Your task to perform on an android device: Add "macbook" to the cart on newegg.com Image 0: 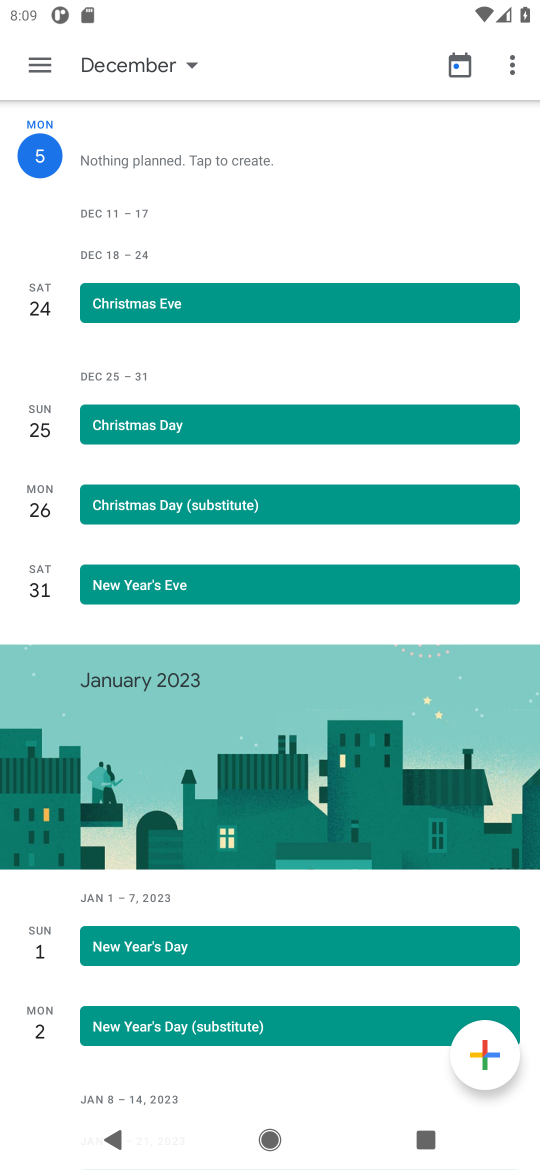
Step 0: press home button
Your task to perform on an android device: Add "macbook" to the cart on newegg.com Image 1: 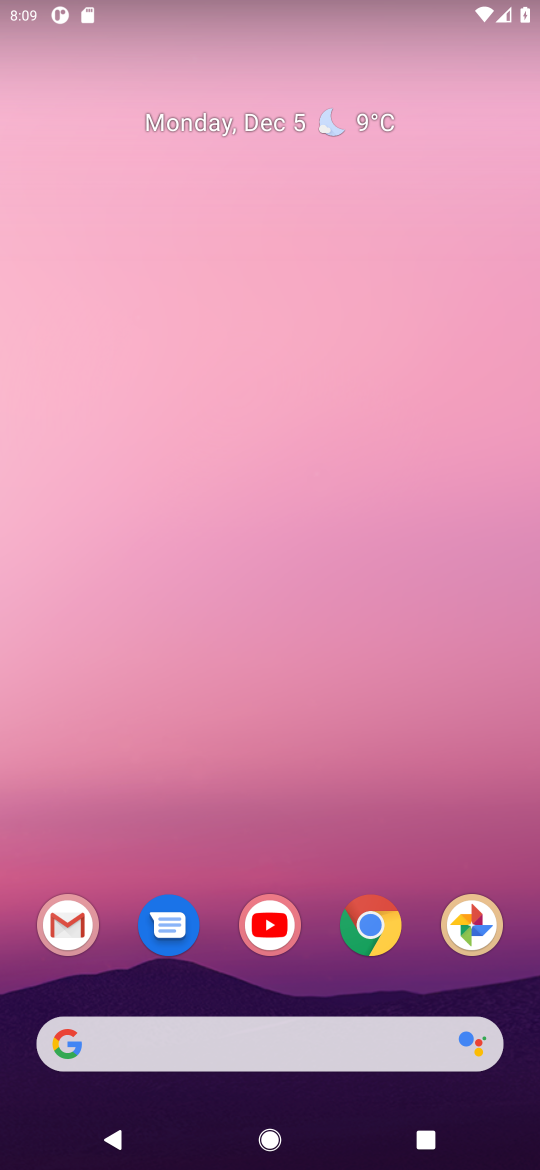
Step 1: click (380, 915)
Your task to perform on an android device: Add "macbook" to the cart on newegg.com Image 2: 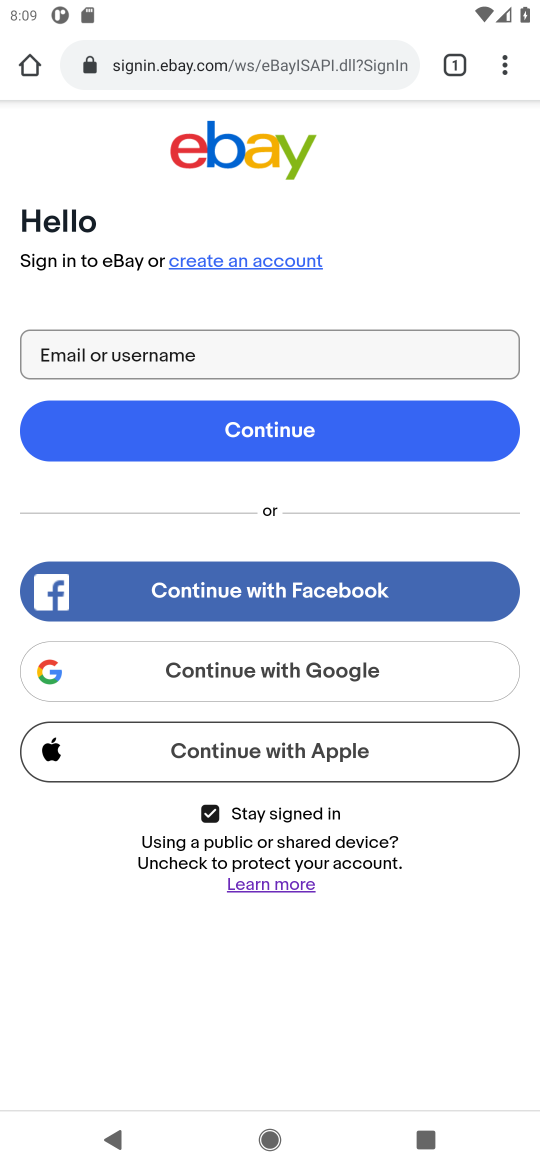
Step 2: click (223, 67)
Your task to perform on an android device: Add "macbook" to the cart on newegg.com Image 3: 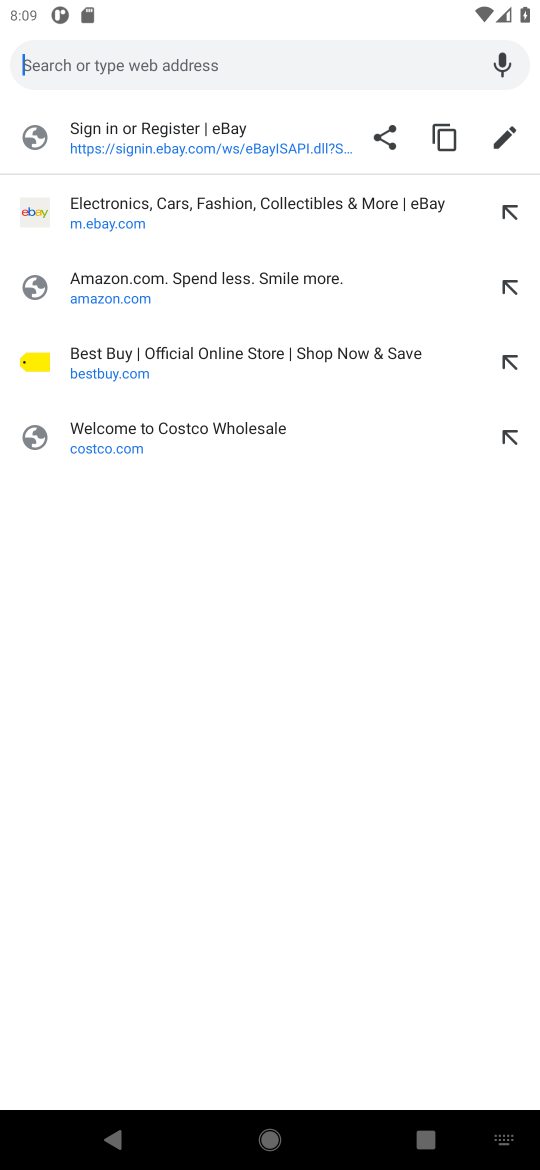
Step 3: type "newegg.com"
Your task to perform on an android device: Add "macbook" to the cart on newegg.com Image 4: 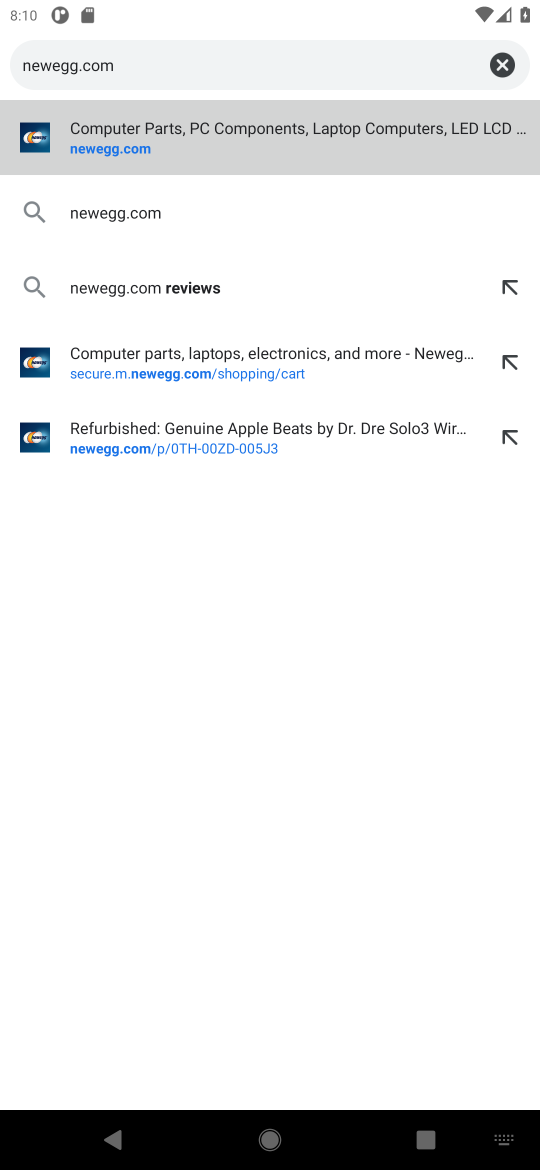
Step 4: click (104, 148)
Your task to perform on an android device: Add "macbook" to the cart on newegg.com Image 5: 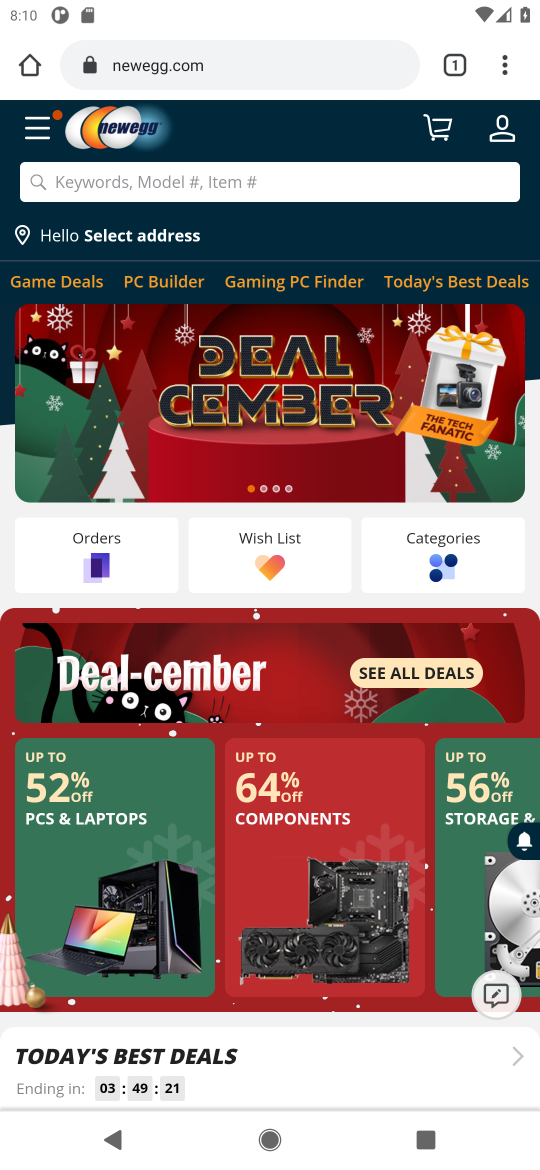
Step 5: click (113, 171)
Your task to perform on an android device: Add "macbook" to the cart on newegg.com Image 6: 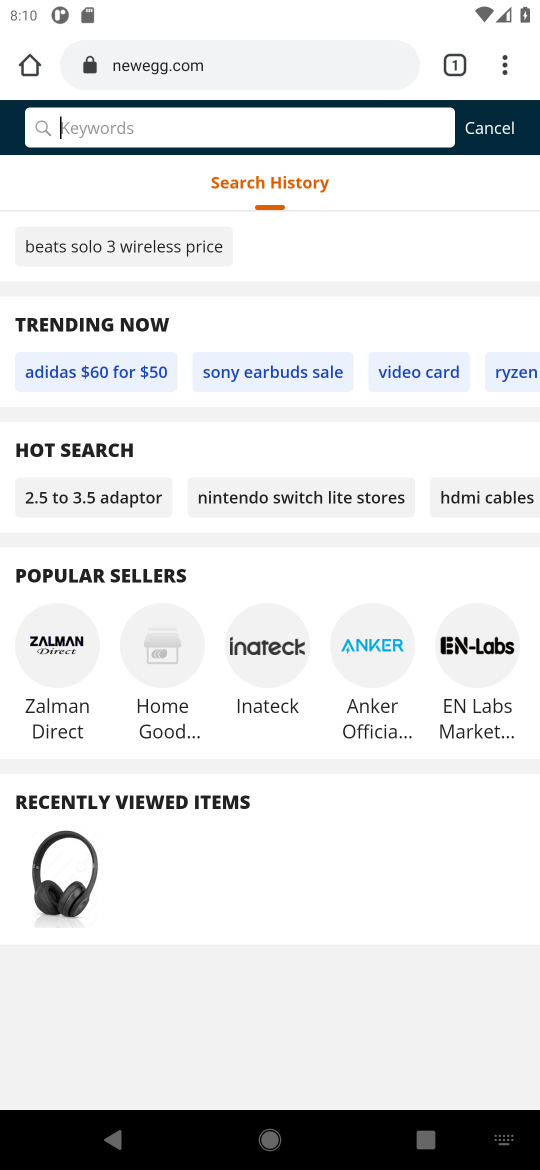
Step 6: type "macbook"
Your task to perform on an android device: Add "macbook" to the cart on newegg.com Image 7: 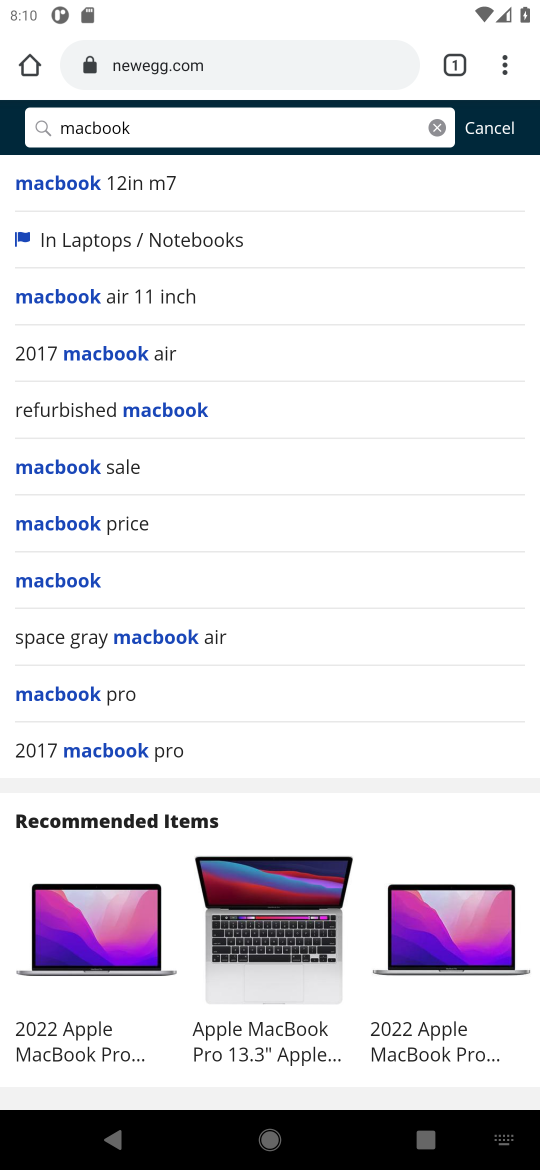
Step 7: click (68, 572)
Your task to perform on an android device: Add "macbook" to the cart on newegg.com Image 8: 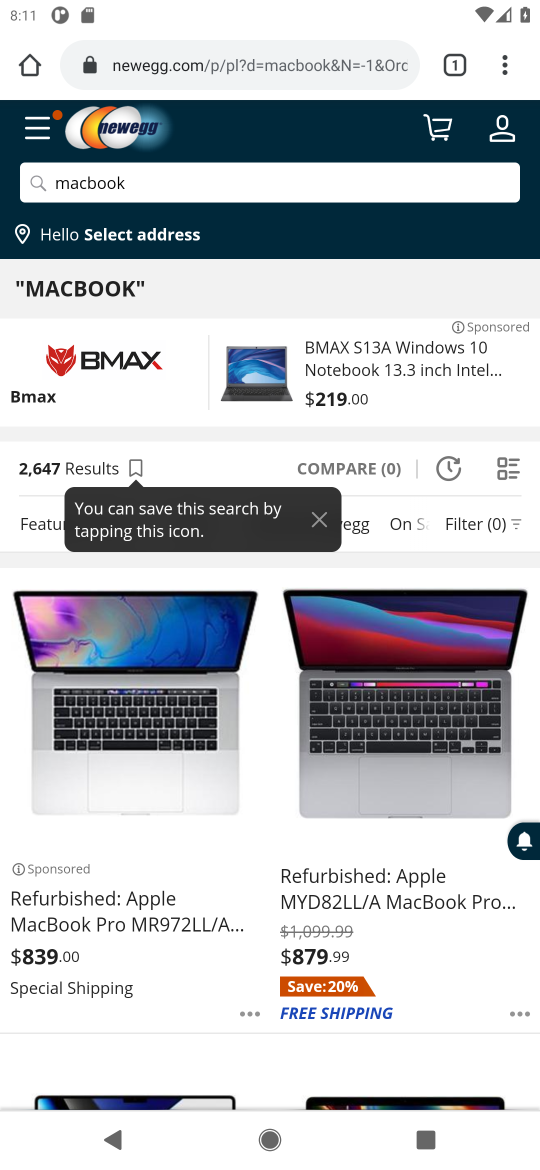
Step 8: click (109, 920)
Your task to perform on an android device: Add "macbook" to the cart on newegg.com Image 9: 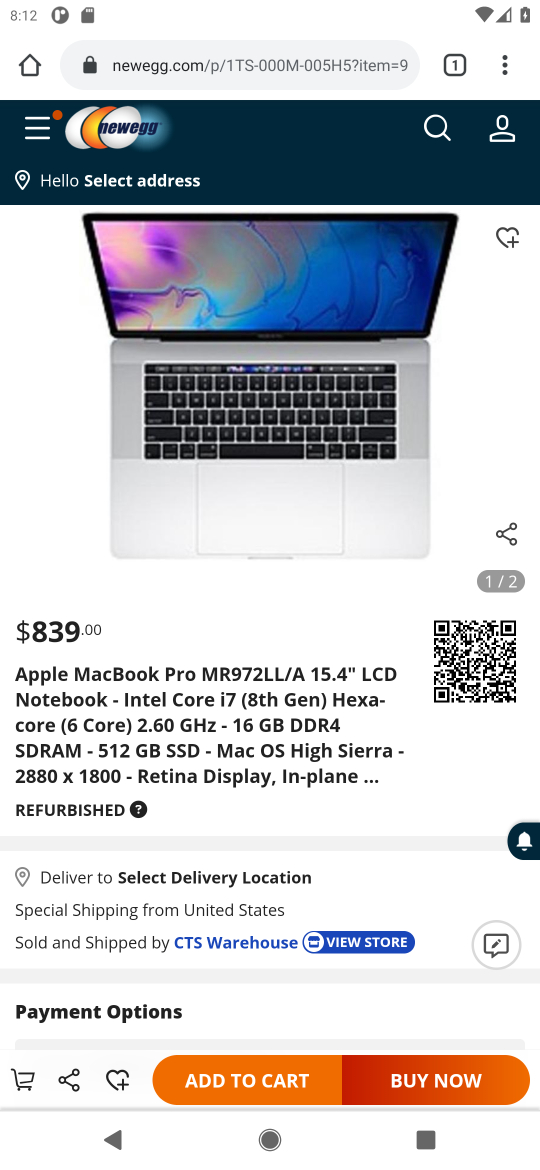
Step 9: click (228, 1080)
Your task to perform on an android device: Add "macbook" to the cart on newegg.com Image 10: 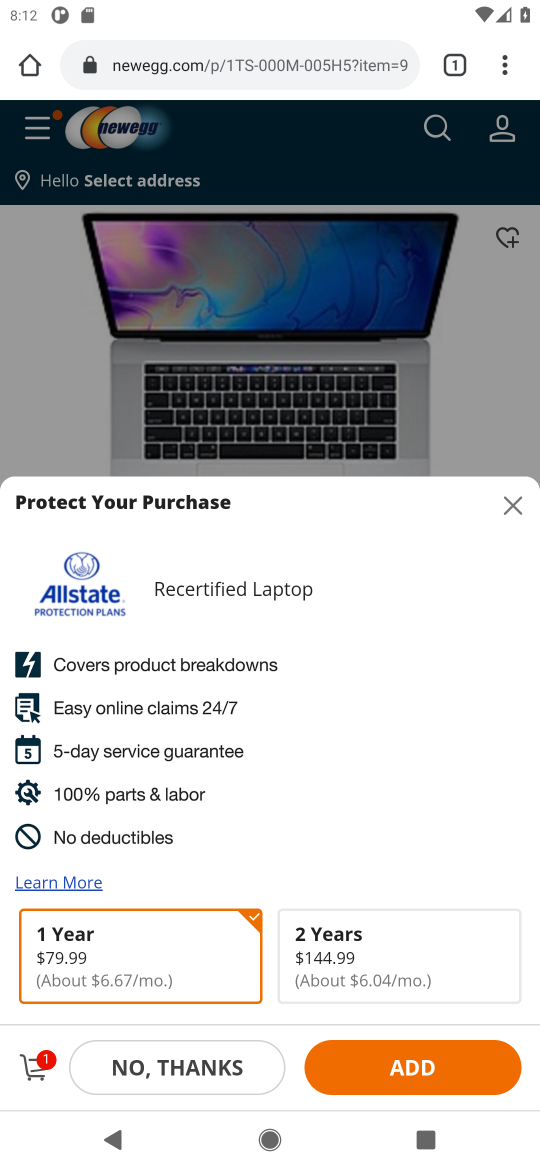
Step 10: task complete